Your task to perform on an android device: toggle location history Image 0: 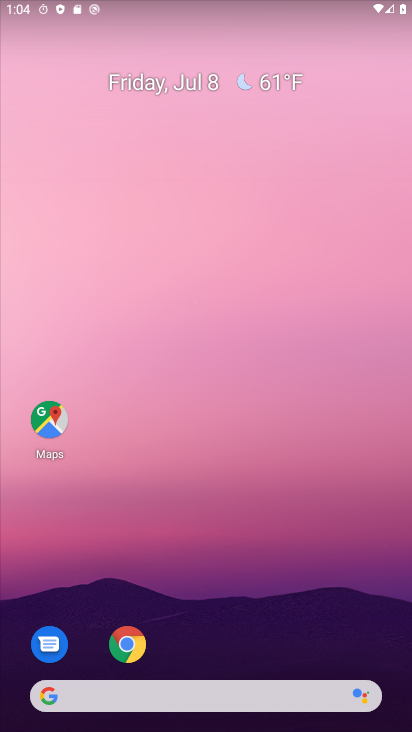
Step 0: press home button
Your task to perform on an android device: toggle location history Image 1: 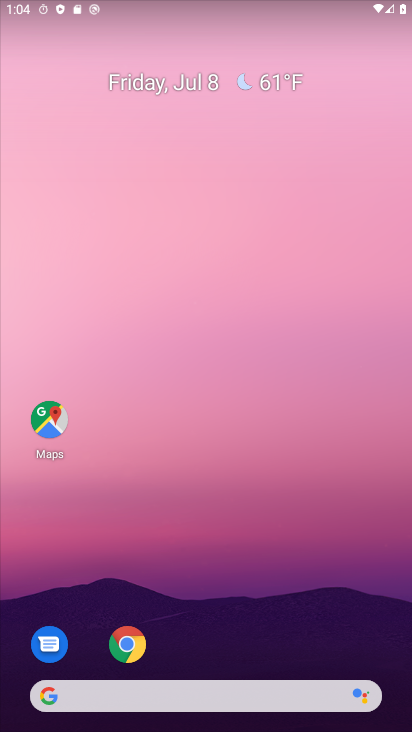
Step 1: drag from (200, 571) to (200, 26)
Your task to perform on an android device: toggle location history Image 2: 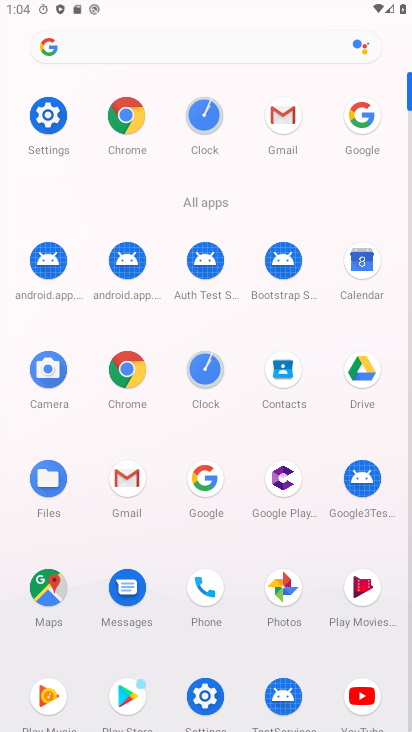
Step 2: click (44, 122)
Your task to perform on an android device: toggle location history Image 3: 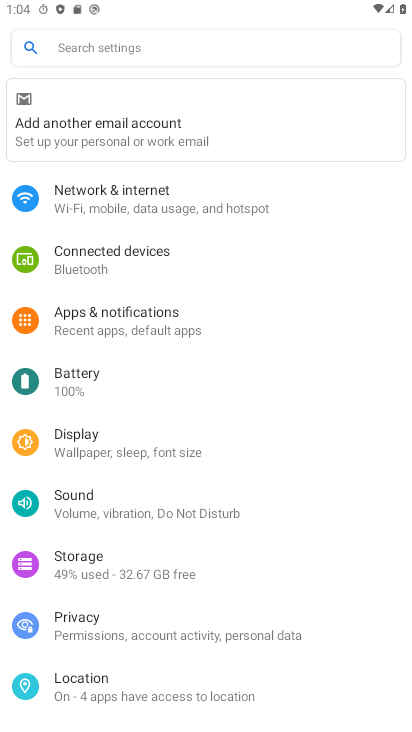
Step 3: click (88, 694)
Your task to perform on an android device: toggle location history Image 4: 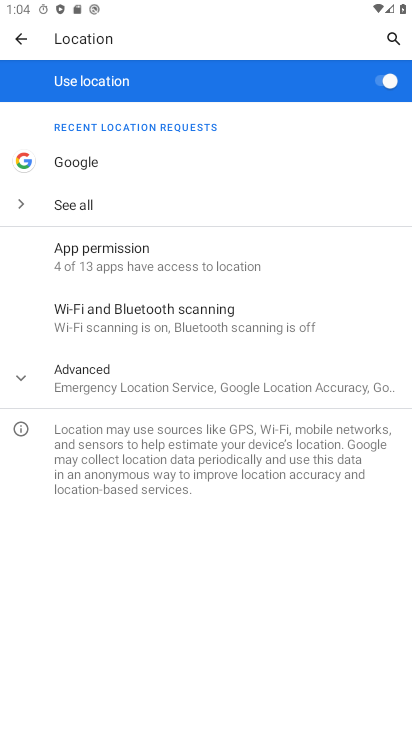
Step 4: click (86, 369)
Your task to perform on an android device: toggle location history Image 5: 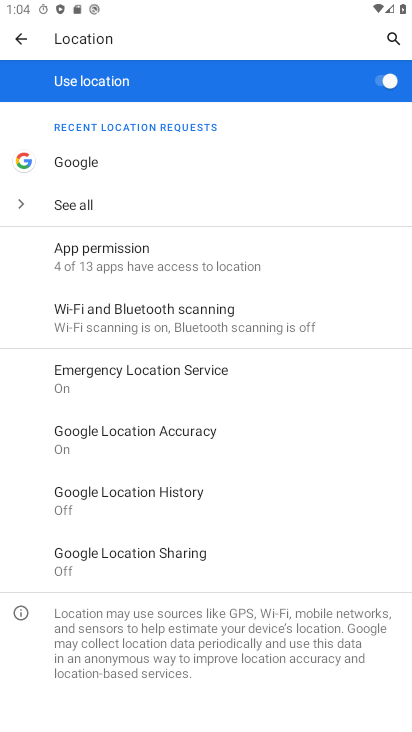
Step 5: click (89, 496)
Your task to perform on an android device: toggle location history Image 6: 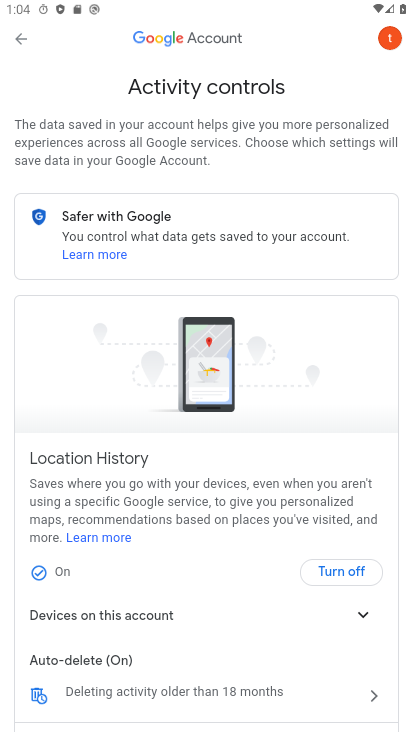
Step 6: click (344, 560)
Your task to perform on an android device: toggle location history Image 7: 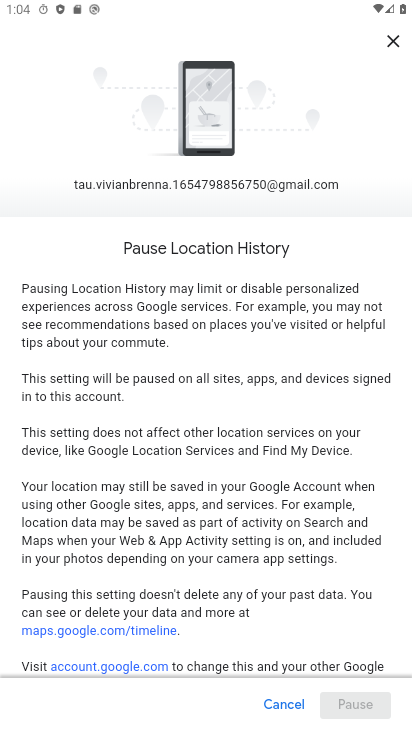
Step 7: drag from (321, 451) to (330, 273)
Your task to perform on an android device: toggle location history Image 8: 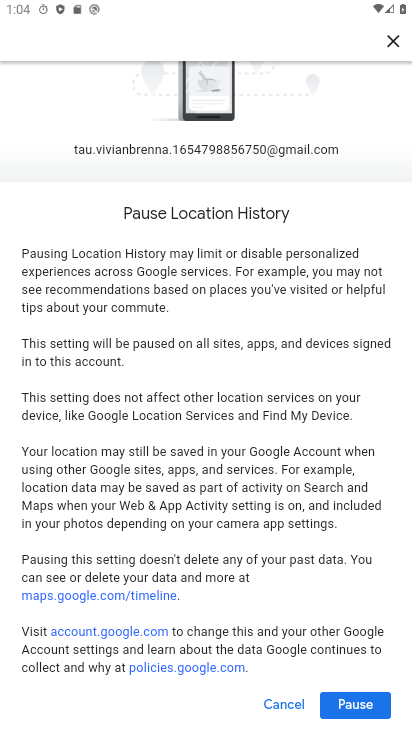
Step 8: drag from (231, 436) to (260, 357)
Your task to perform on an android device: toggle location history Image 9: 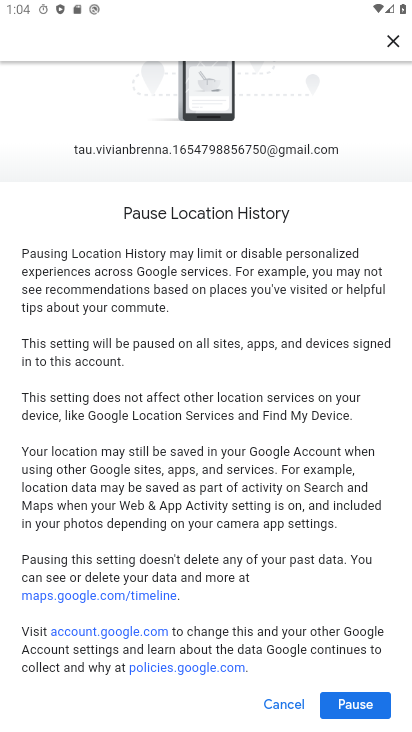
Step 9: click (334, 709)
Your task to perform on an android device: toggle location history Image 10: 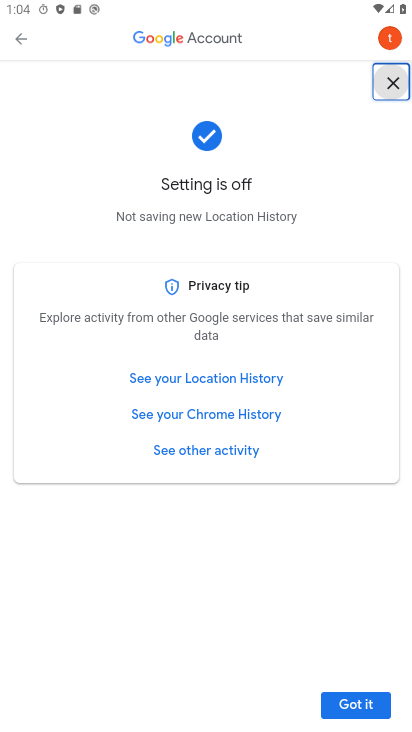
Step 10: click (334, 709)
Your task to perform on an android device: toggle location history Image 11: 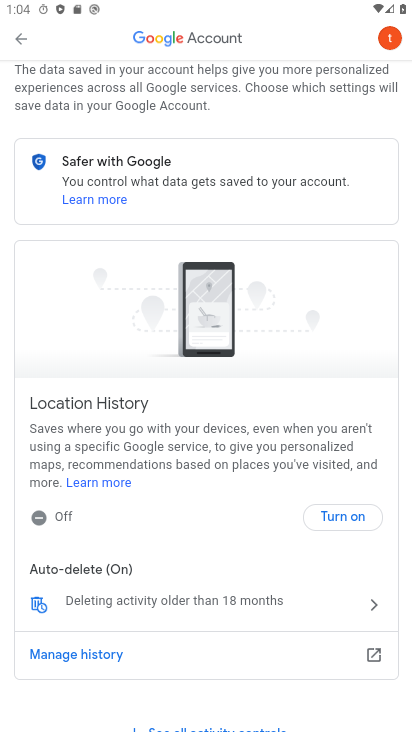
Step 11: task complete